Your task to perform on an android device: When is my next meeting? Image 0: 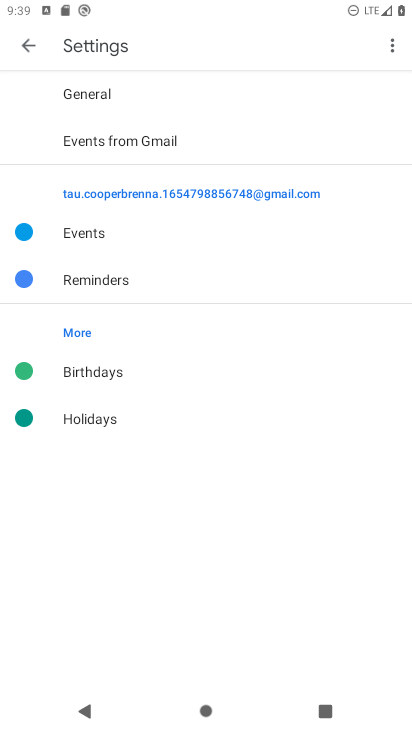
Step 0: press home button
Your task to perform on an android device: When is my next meeting? Image 1: 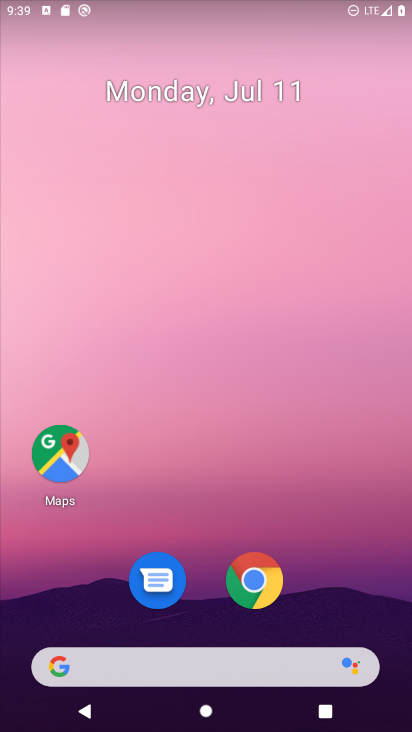
Step 1: drag from (251, 501) to (195, 17)
Your task to perform on an android device: When is my next meeting? Image 2: 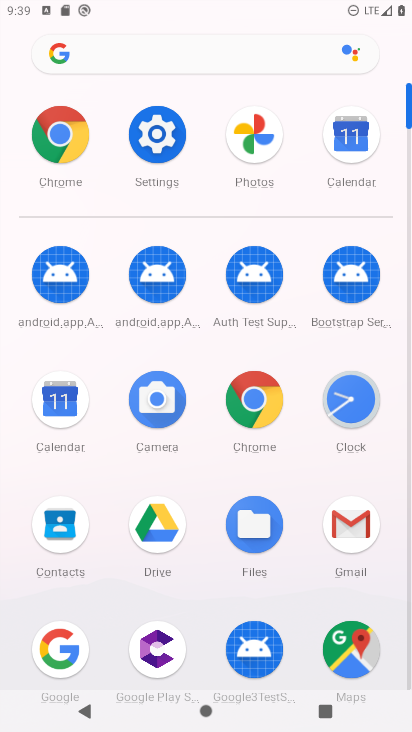
Step 2: click (350, 155)
Your task to perform on an android device: When is my next meeting? Image 3: 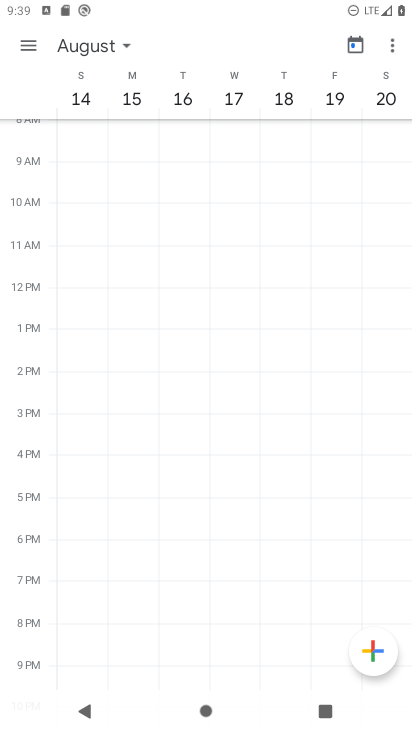
Step 3: click (26, 46)
Your task to perform on an android device: When is my next meeting? Image 4: 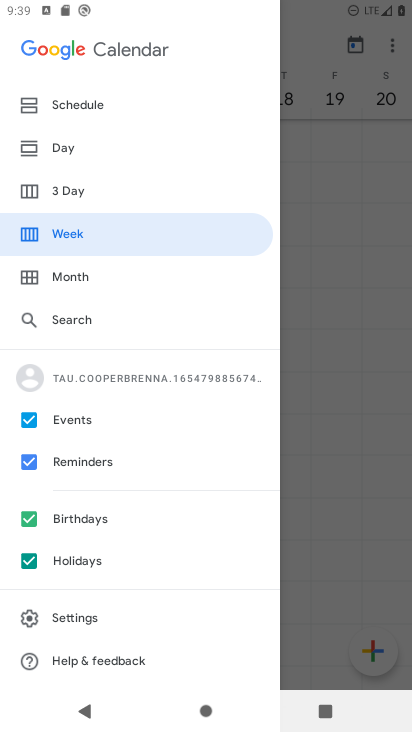
Step 4: click (45, 272)
Your task to perform on an android device: When is my next meeting? Image 5: 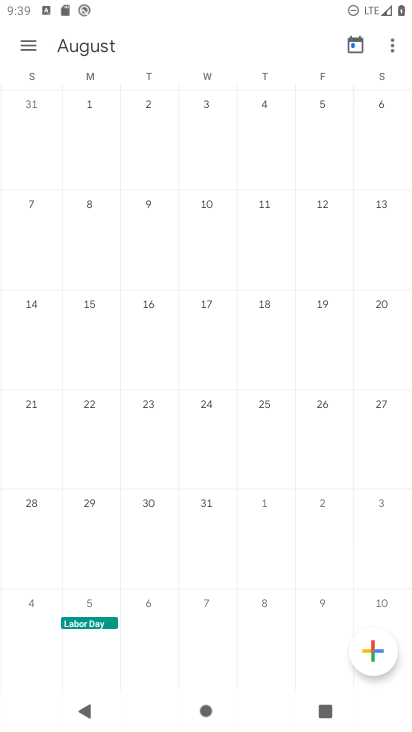
Step 5: drag from (91, 307) to (397, 396)
Your task to perform on an android device: When is my next meeting? Image 6: 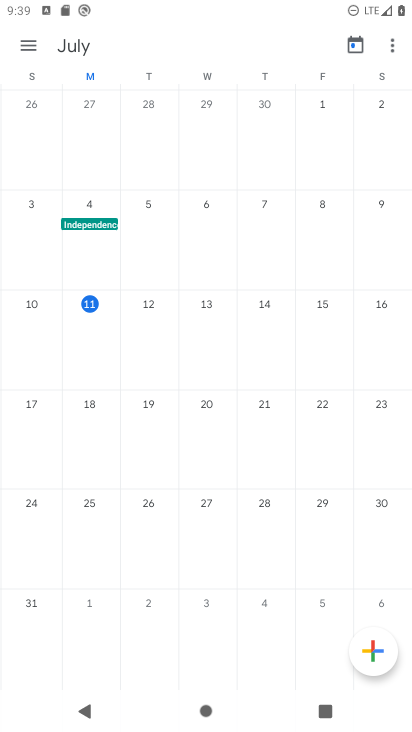
Step 6: click (87, 310)
Your task to perform on an android device: When is my next meeting? Image 7: 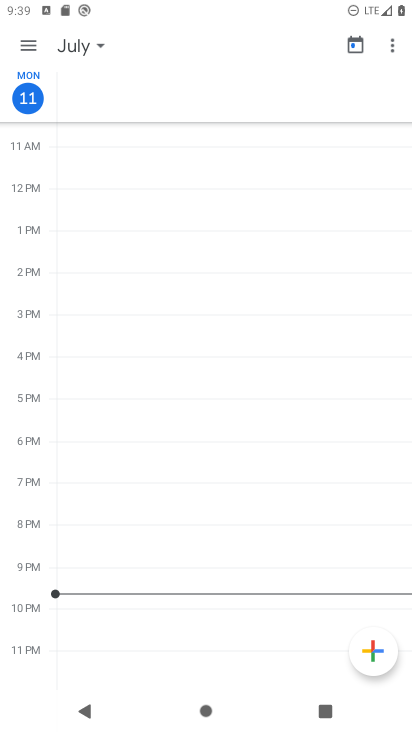
Step 7: click (30, 32)
Your task to perform on an android device: When is my next meeting? Image 8: 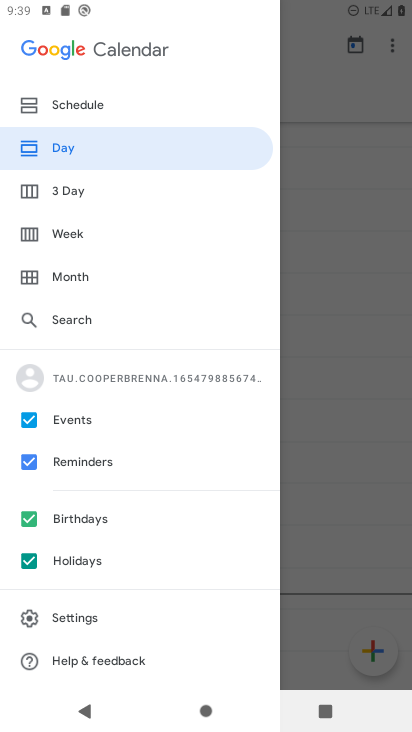
Step 8: click (61, 98)
Your task to perform on an android device: When is my next meeting? Image 9: 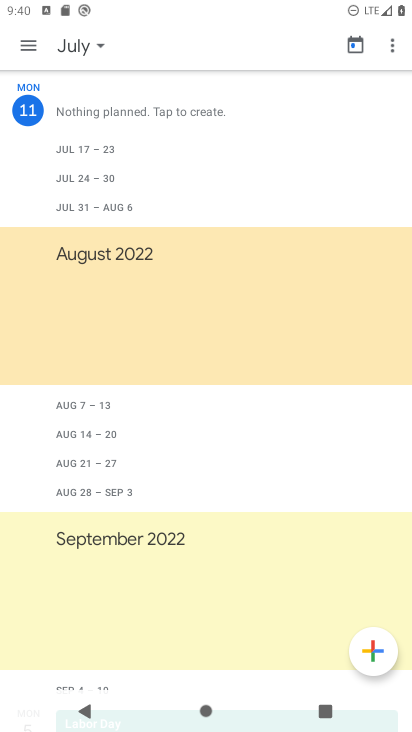
Step 9: task complete